Your task to perform on an android device: change the clock style Image 0: 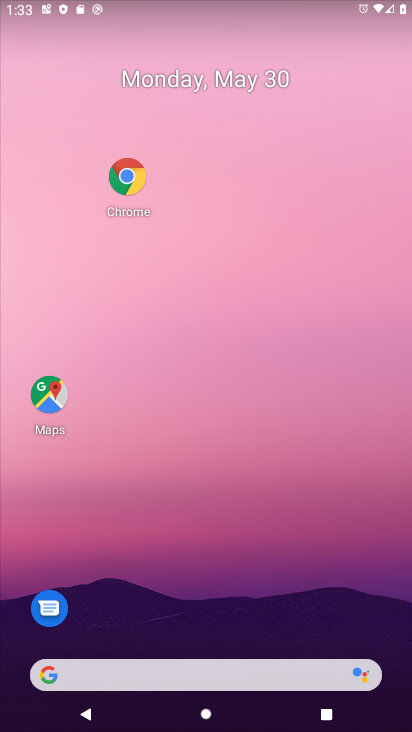
Step 0: drag from (248, 596) to (292, 23)
Your task to perform on an android device: change the clock style Image 1: 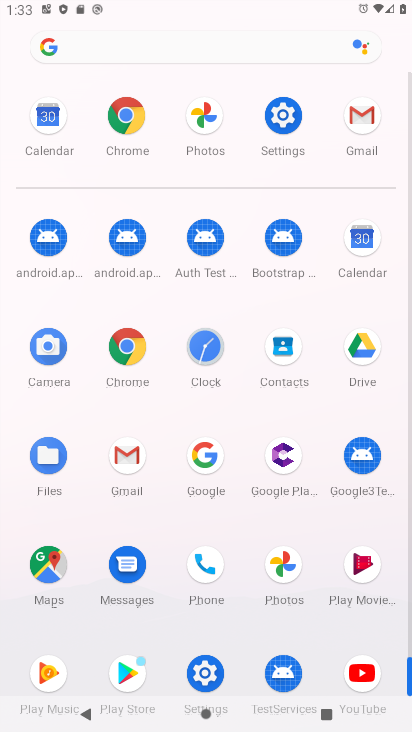
Step 1: click (205, 350)
Your task to perform on an android device: change the clock style Image 2: 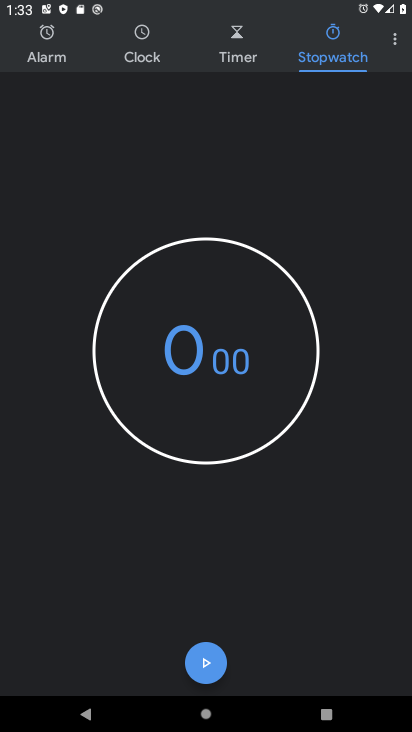
Step 2: click (395, 35)
Your task to perform on an android device: change the clock style Image 3: 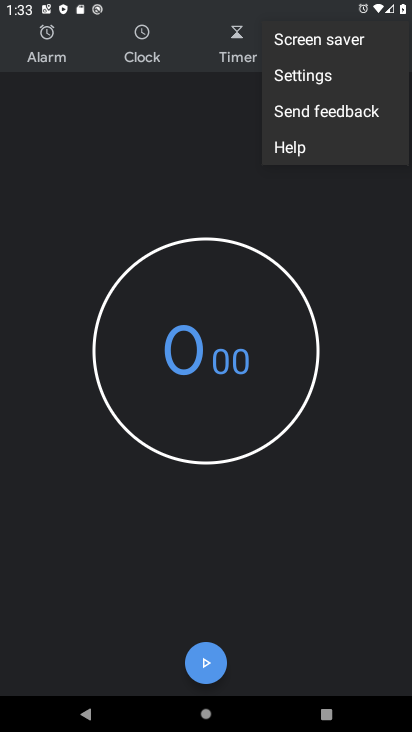
Step 3: click (317, 82)
Your task to perform on an android device: change the clock style Image 4: 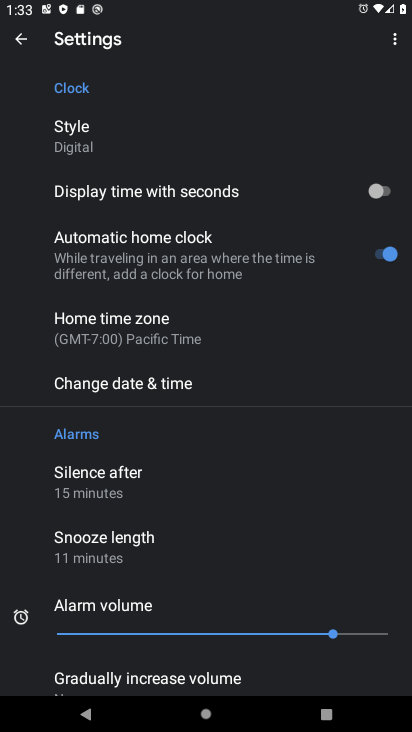
Step 4: click (100, 134)
Your task to perform on an android device: change the clock style Image 5: 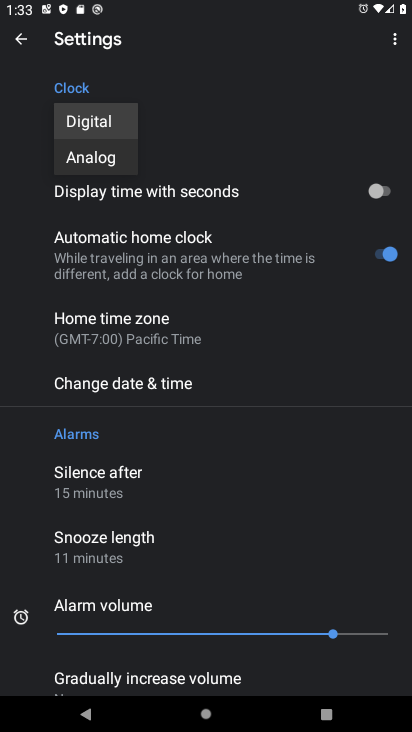
Step 5: click (106, 160)
Your task to perform on an android device: change the clock style Image 6: 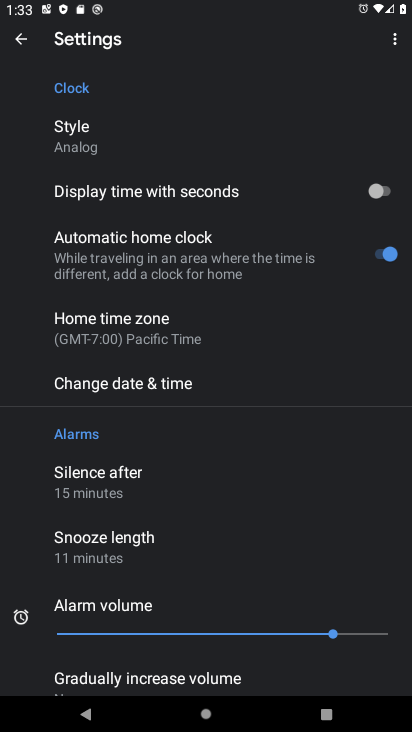
Step 6: task complete